Your task to perform on an android device: Open settings Image 0: 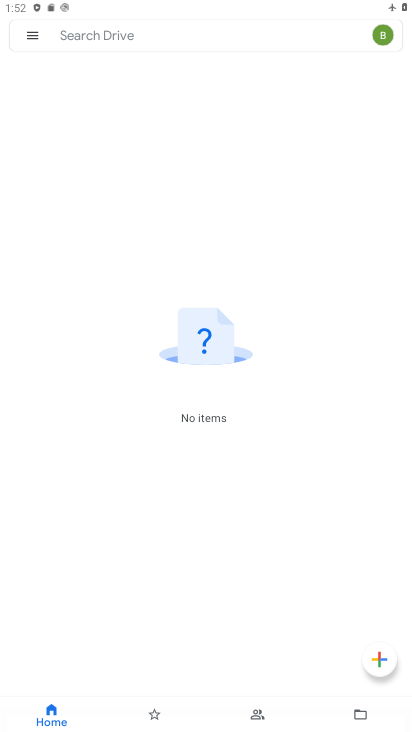
Step 0: press home button
Your task to perform on an android device: Open settings Image 1: 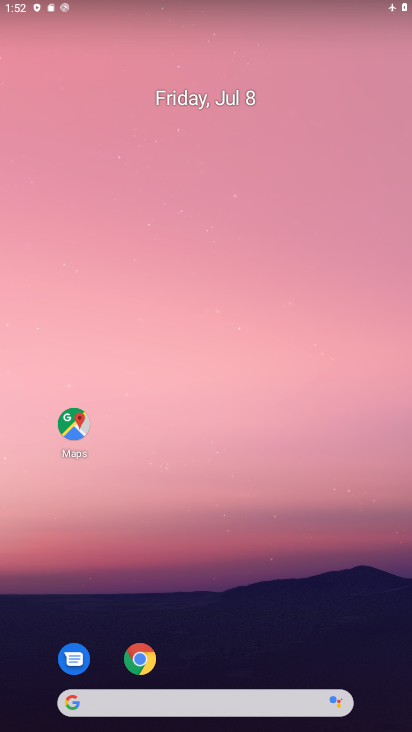
Step 1: drag from (253, 631) to (243, 109)
Your task to perform on an android device: Open settings Image 2: 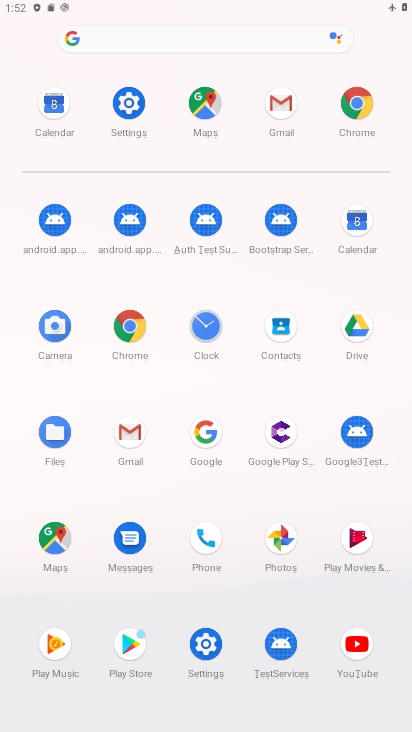
Step 2: click (206, 656)
Your task to perform on an android device: Open settings Image 3: 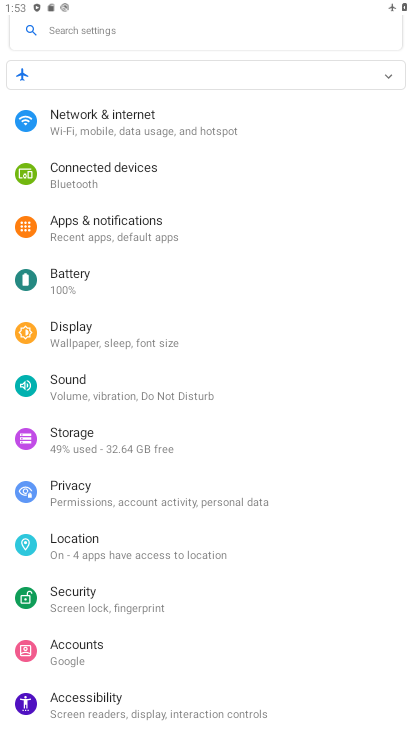
Step 3: task complete